Your task to perform on an android device: find photos in the google photos app Image 0: 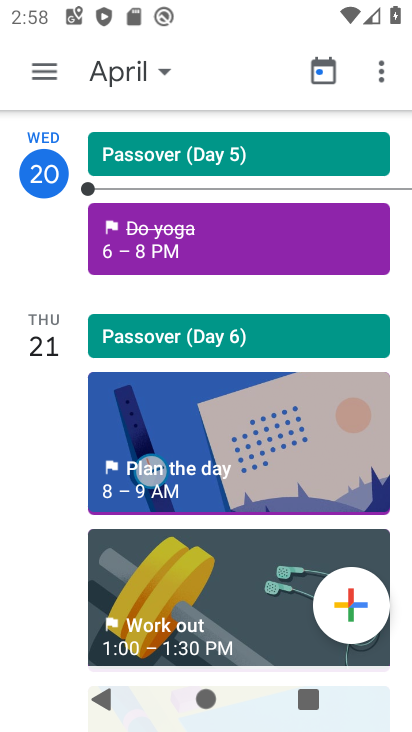
Step 0: press home button
Your task to perform on an android device: find photos in the google photos app Image 1: 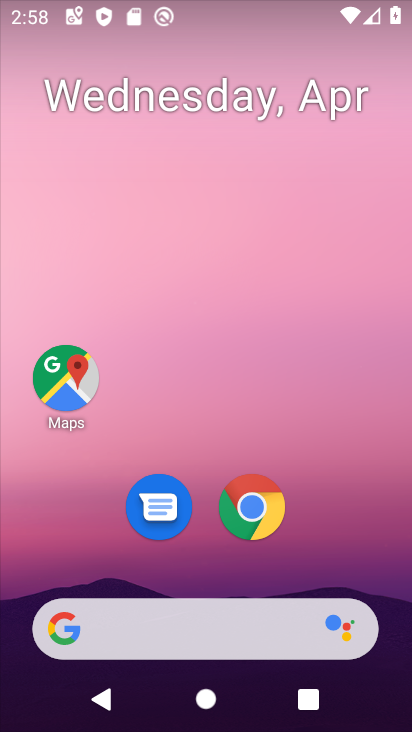
Step 1: drag from (323, 566) to (286, 78)
Your task to perform on an android device: find photos in the google photos app Image 2: 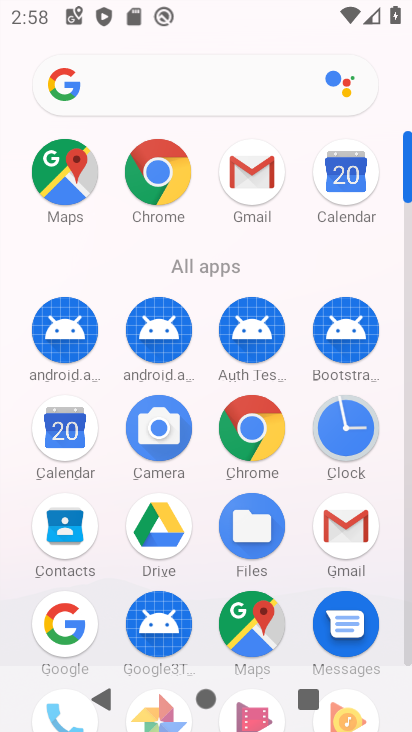
Step 2: click (402, 567)
Your task to perform on an android device: find photos in the google photos app Image 3: 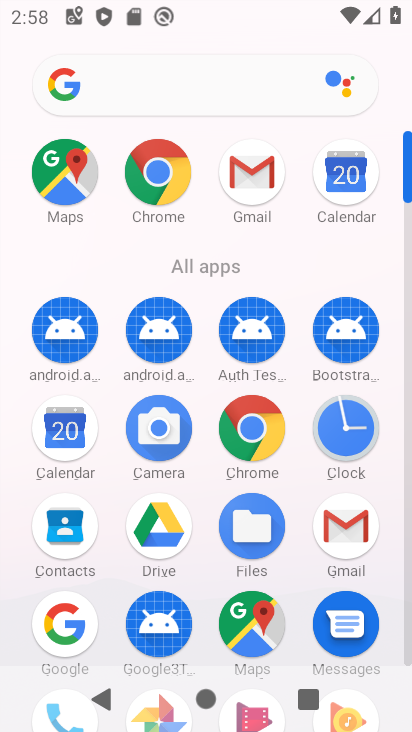
Step 3: click (408, 565)
Your task to perform on an android device: find photos in the google photos app Image 4: 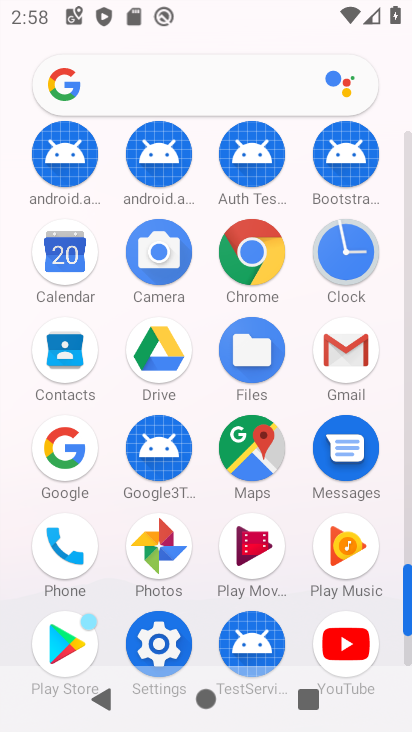
Step 4: click (170, 535)
Your task to perform on an android device: find photos in the google photos app Image 5: 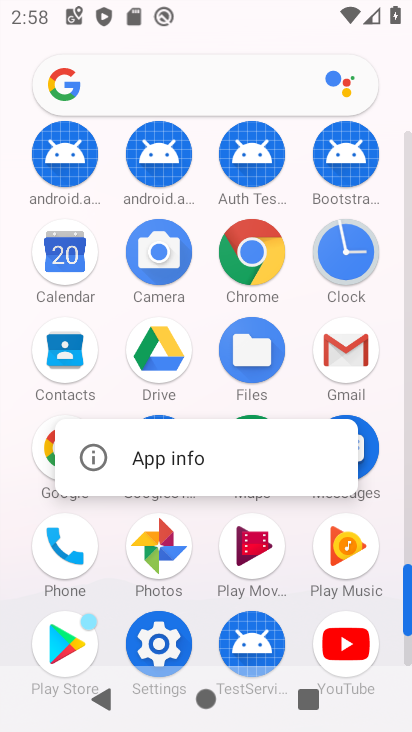
Step 5: click (155, 456)
Your task to perform on an android device: find photos in the google photos app Image 6: 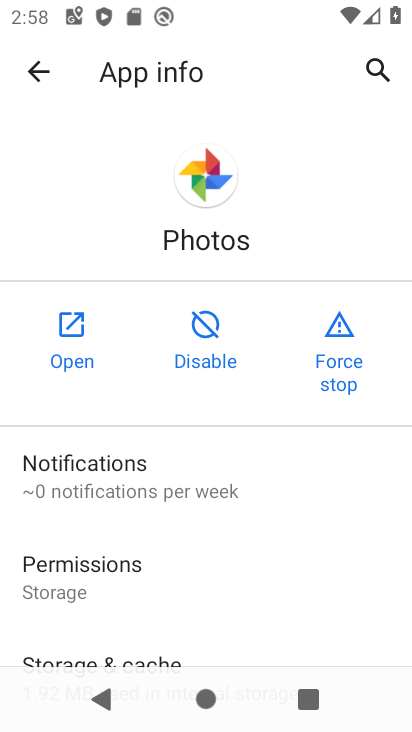
Step 6: press home button
Your task to perform on an android device: find photos in the google photos app Image 7: 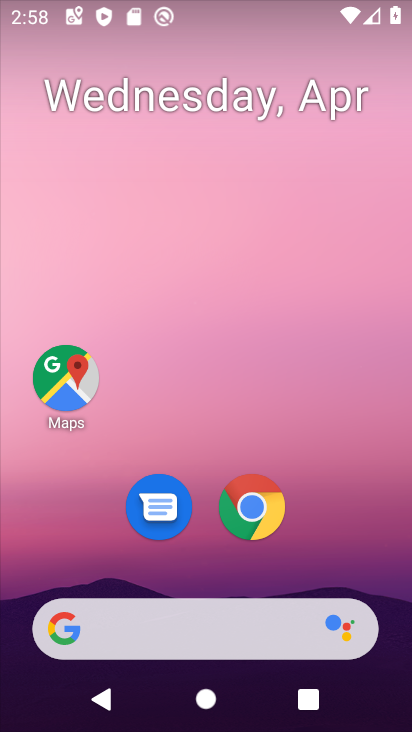
Step 7: drag from (361, 518) to (246, 16)
Your task to perform on an android device: find photos in the google photos app Image 8: 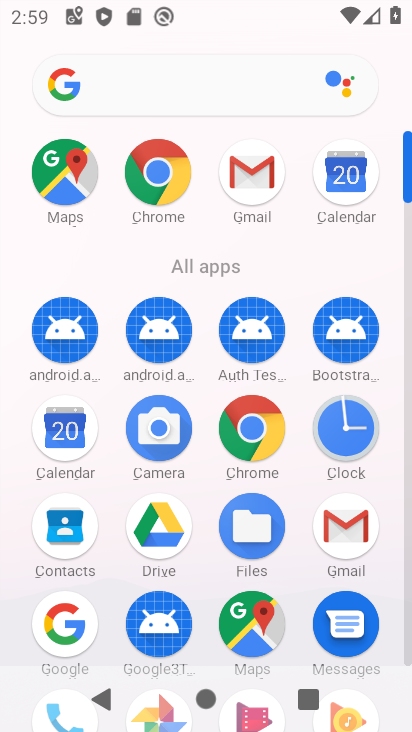
Step 8: click (411, 485)
Your task to perform on an android device: find photos in the google photos app Image 9: 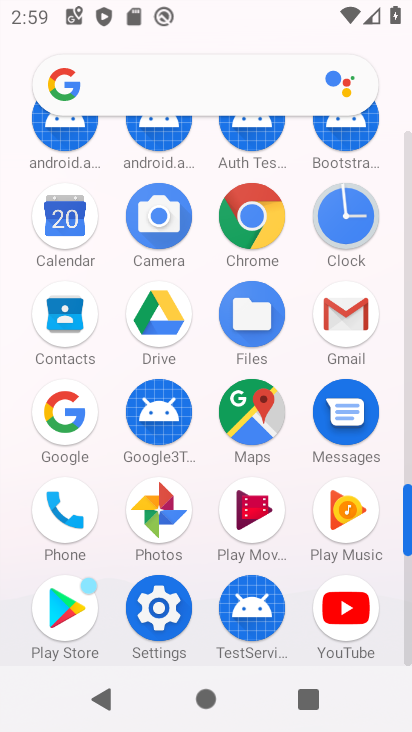
Step 9: click (139, 492)
Your task to perform on an android device: find photos in the google photos app Image 10: 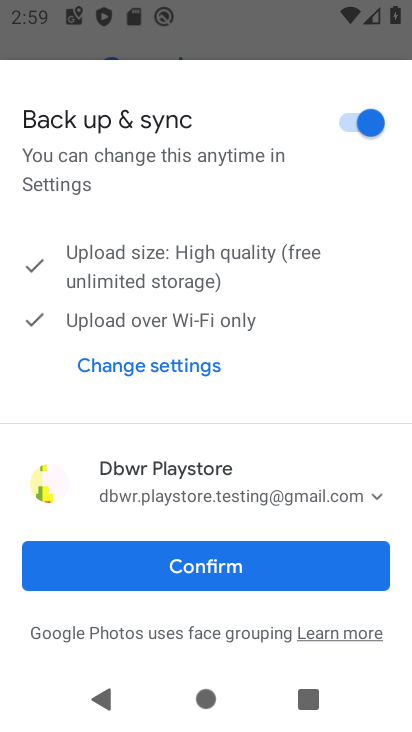
Step 10: click (294, 561)
Your task to perform on an android device: find photos in the google photos app Image 11: 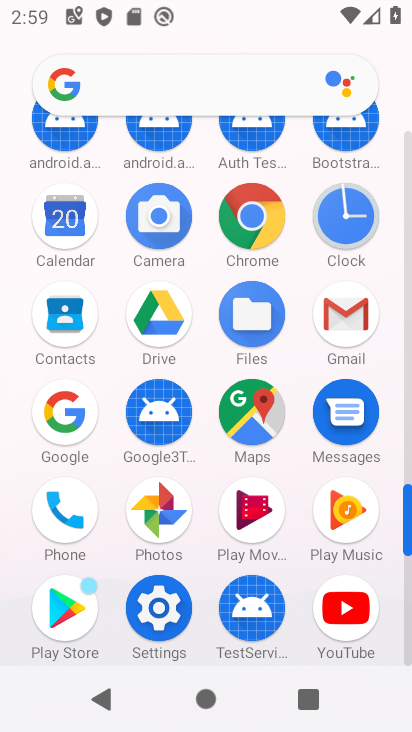
Step 11: click (152, 499)
Your task to perform on an android device: find photos in the google photos app Image 12: 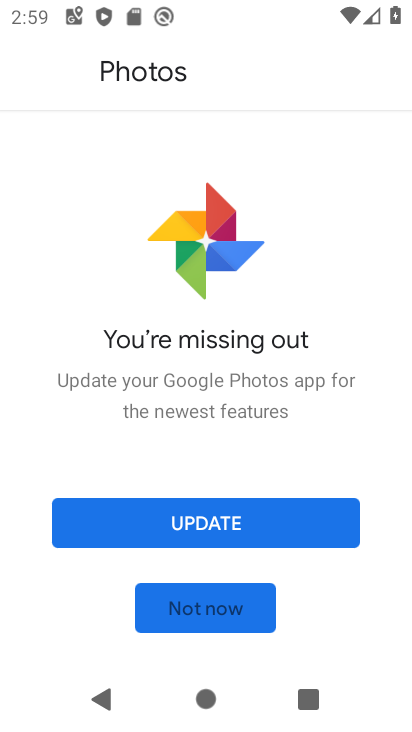
Step 12: click (173, 538)
Your task to perform on an android device: find photos in the google photos app Image 13: 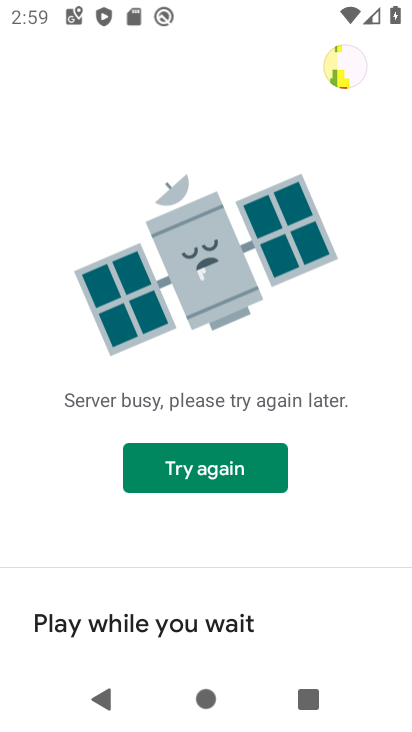
Step 13: task complete